Your task to perform on an android device: delete the emails in spam in the gmail app Image 0: 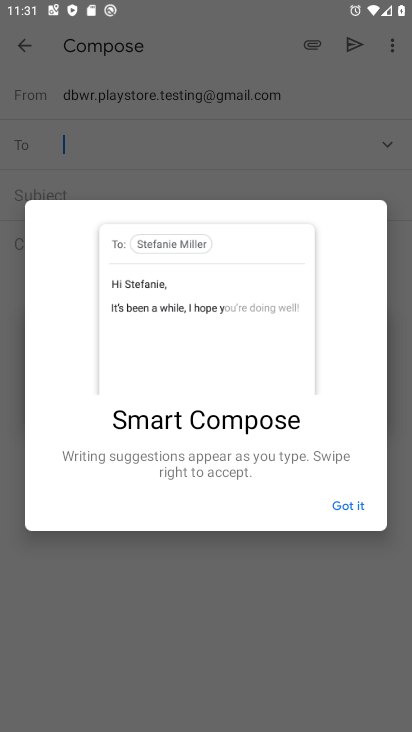
Step 0: press home button
Your task to perform on an android device: delete the emails in spam in the gmail app Image 1: 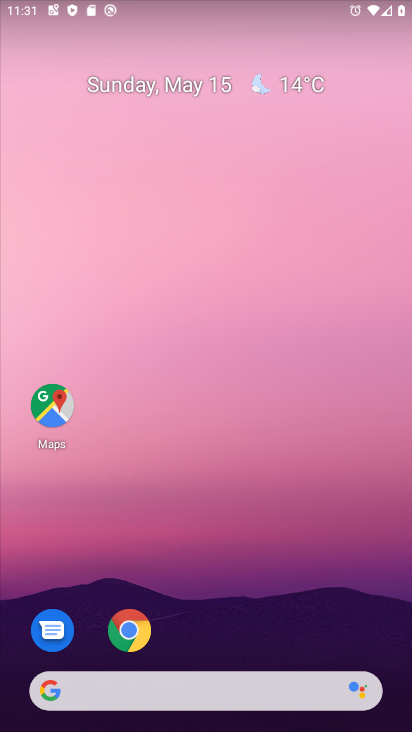
Step 1: drag from (219, 723) to (219, 123)
Your task to perform on an android device: delete the emails in spam in the gmail app Image 2: 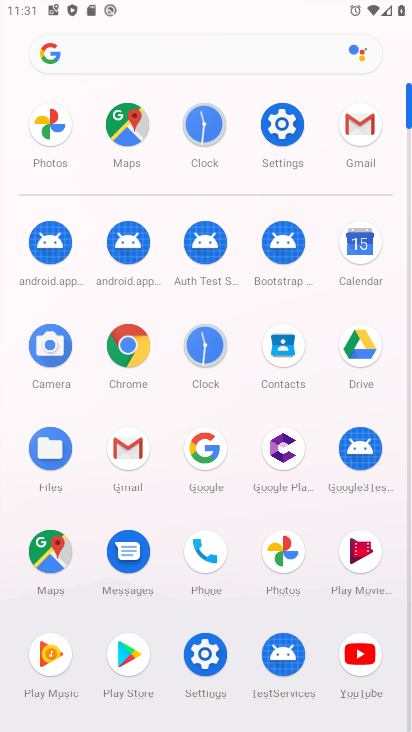
Step 2: click (130, 456)
Your task to perform on an android device: delete the emails in spam in the gmail app Image 3: 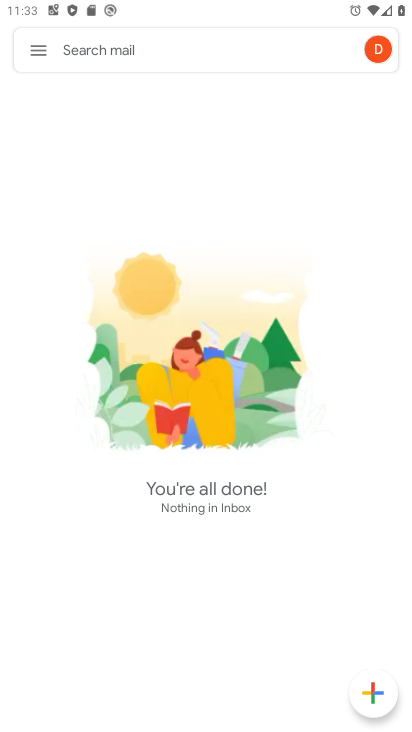
Step 3: task complete